Your task to perform on an android device: add a contact Image 0: 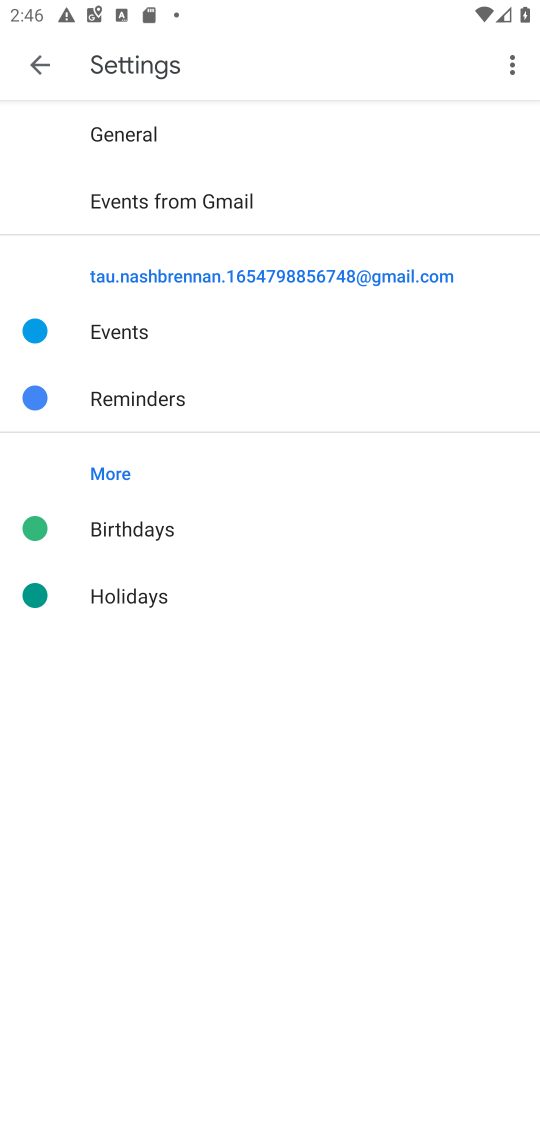
Step 0: press home button
Your task to perform on an android device: add a contact Image 1: 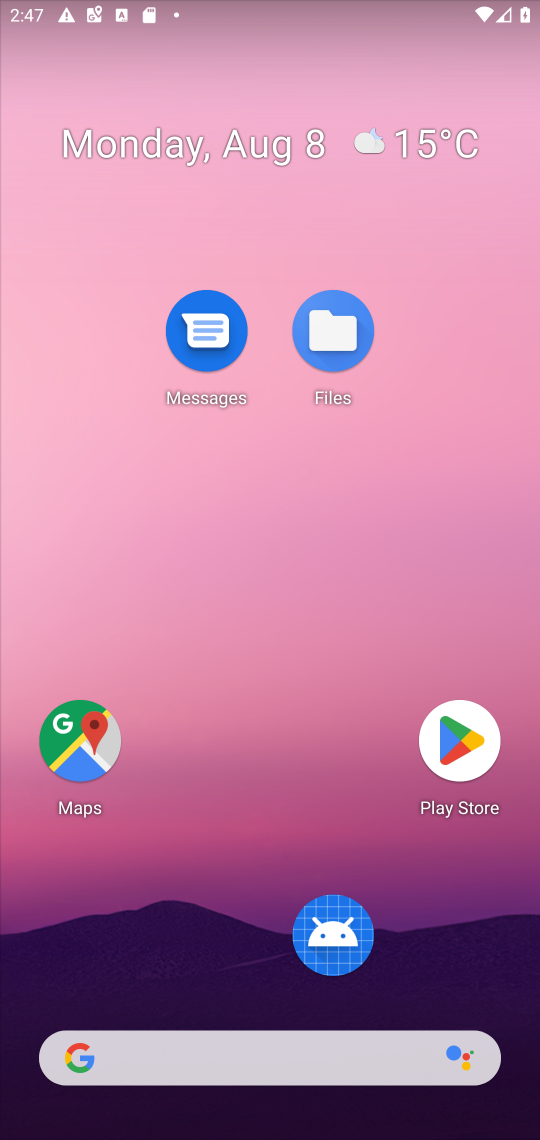
Step 1: drag from (301, 1056) to (540, 607)
Your task to perform on an android device: add a contact Image 2: 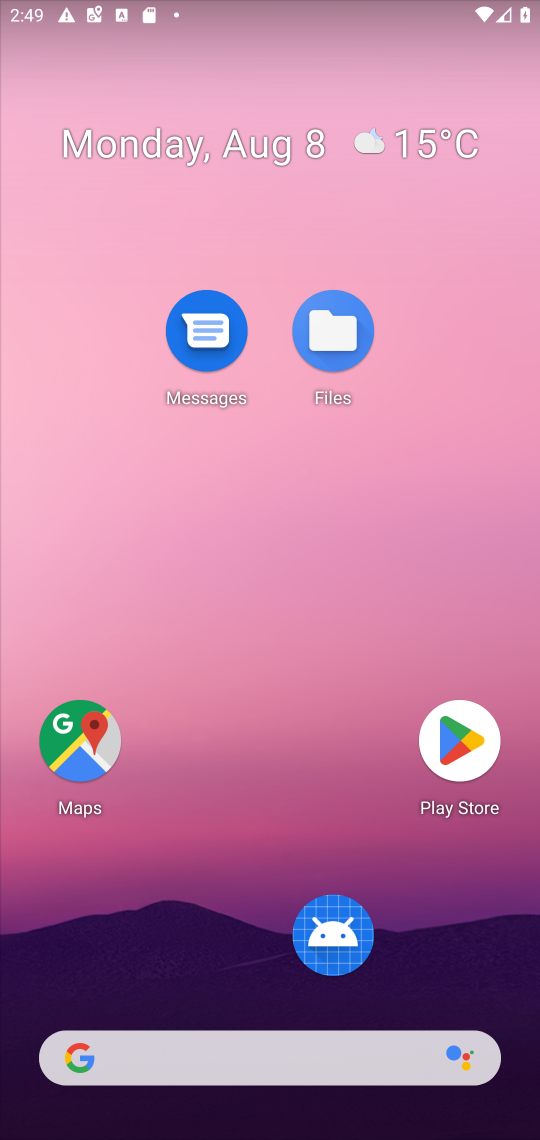
Step 2: drag from (293, 1082) to (477, 57)
Your task to perform on an android device: add a contact Image 3: 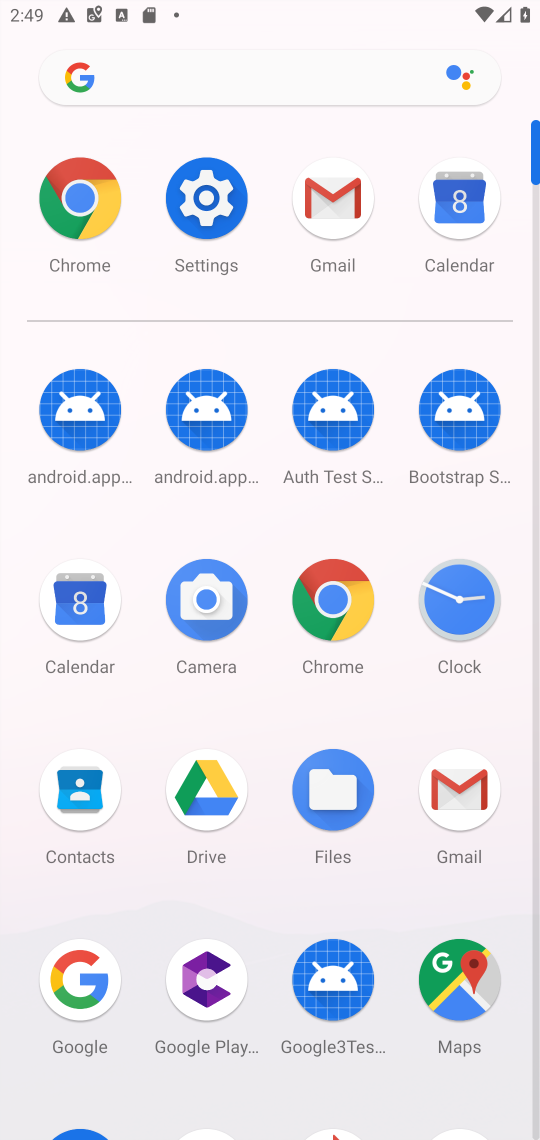
Step 3: click (82, 802)
Your task to perform on an android device: add a contact Image 4: 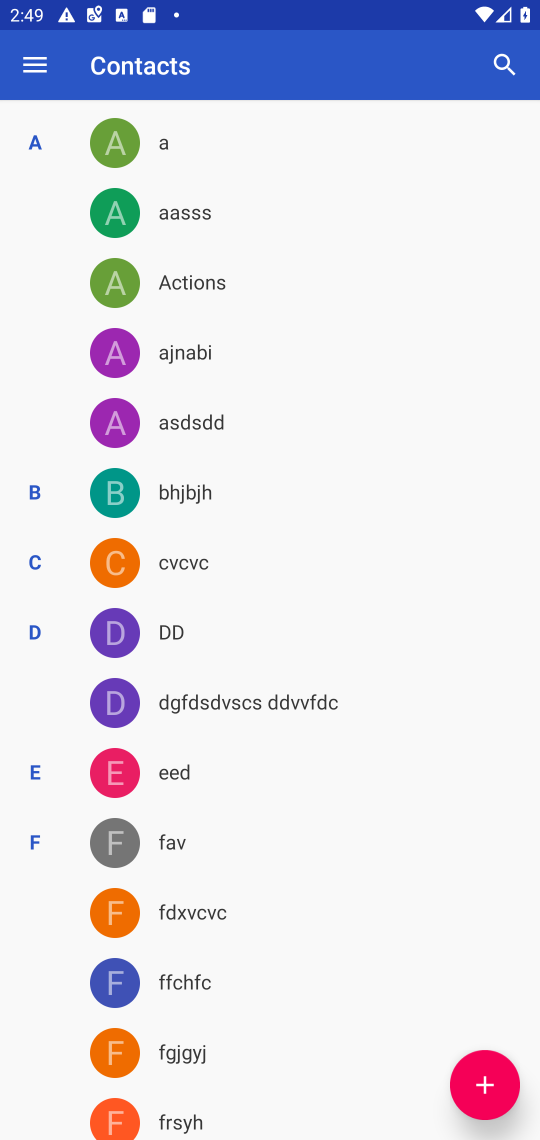
Step 4: click (493, 1054)
Your task to perform on an android device: add a contact Image 5: 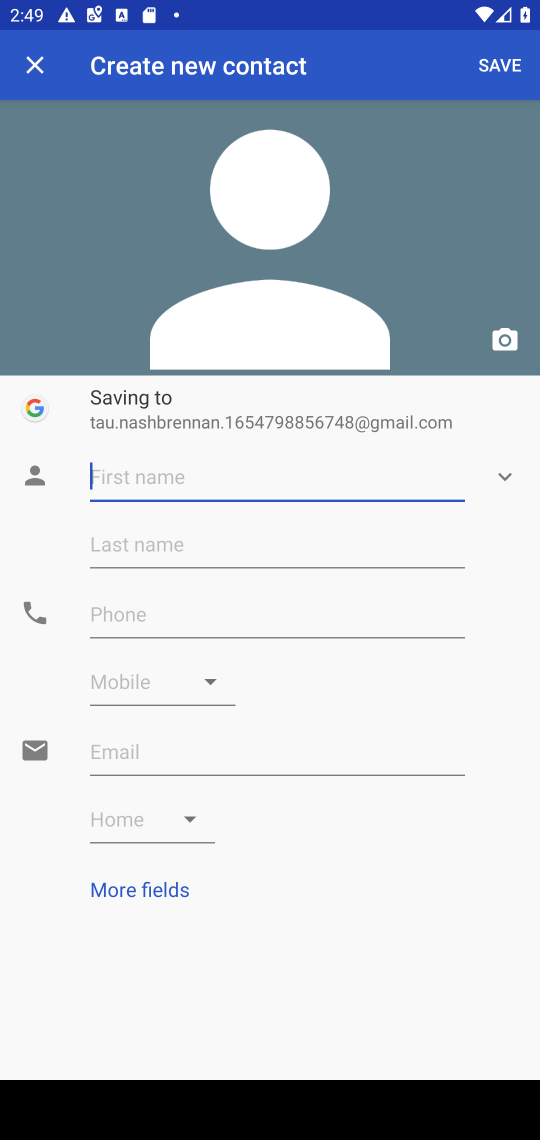
Step 5: type "dfsdgd"
Your task to perform on an android device: add a contact Image 6: 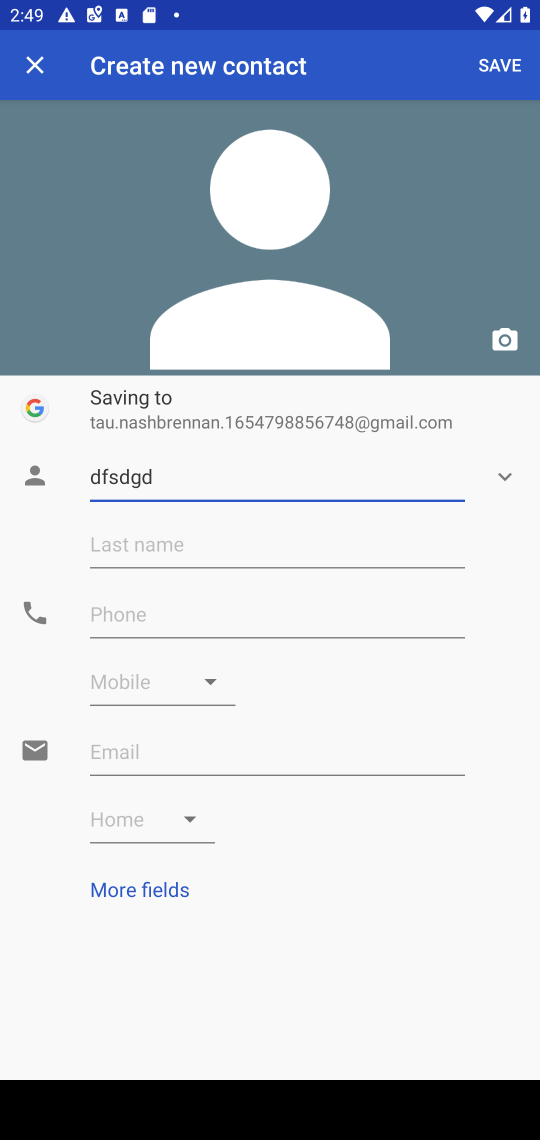
Step 6: click (166, 604)
Your task to perform on an android device: add a contact Image 7: 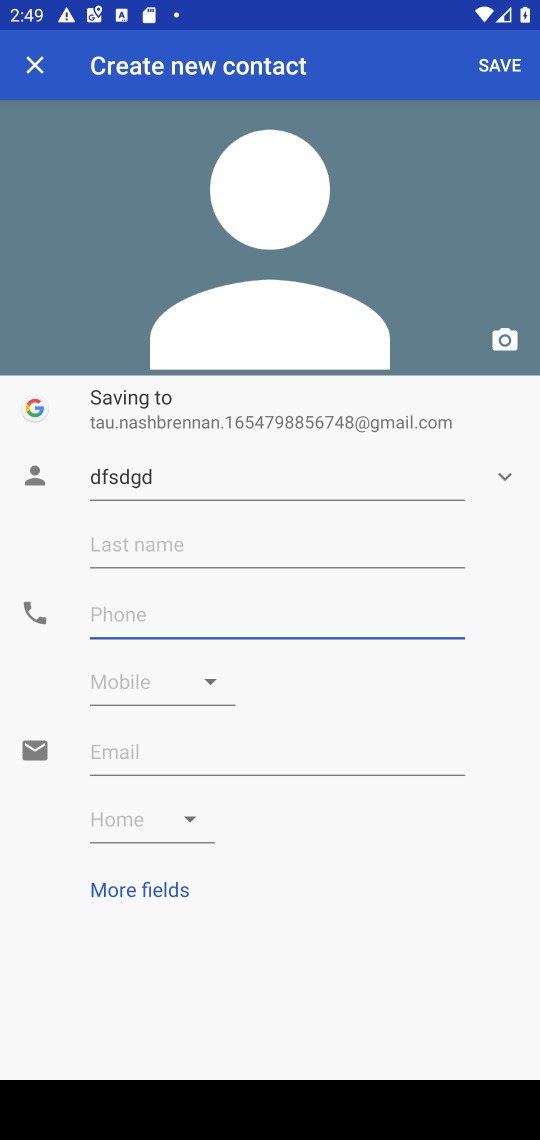
Step 7: type "65434556777"
Your task to perform on an android device: add a contact Image 8: 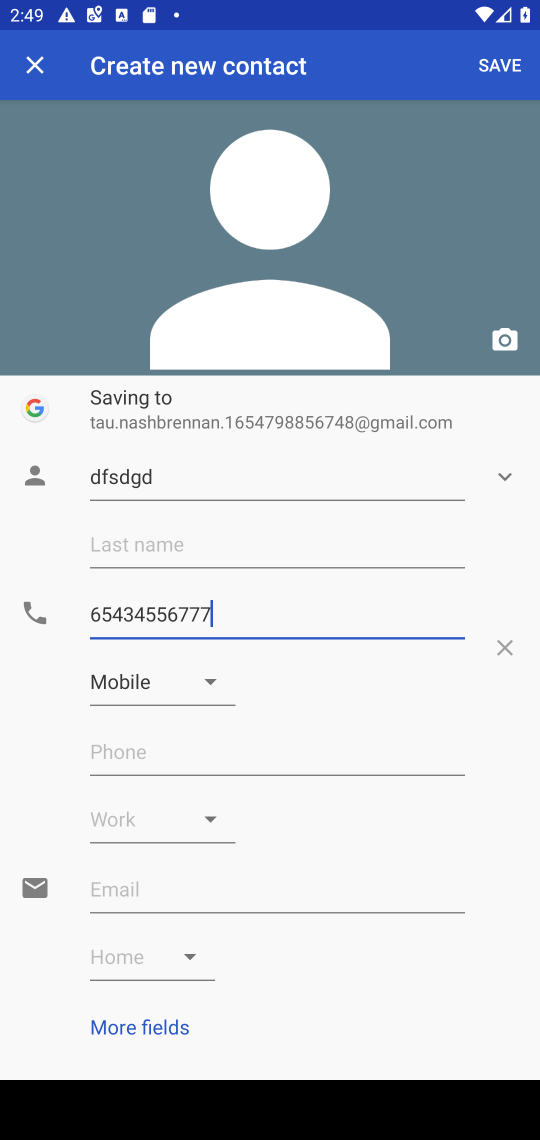
Step 8: click (489, 61)
Your task to perform on an android device: add a contact Image 9: 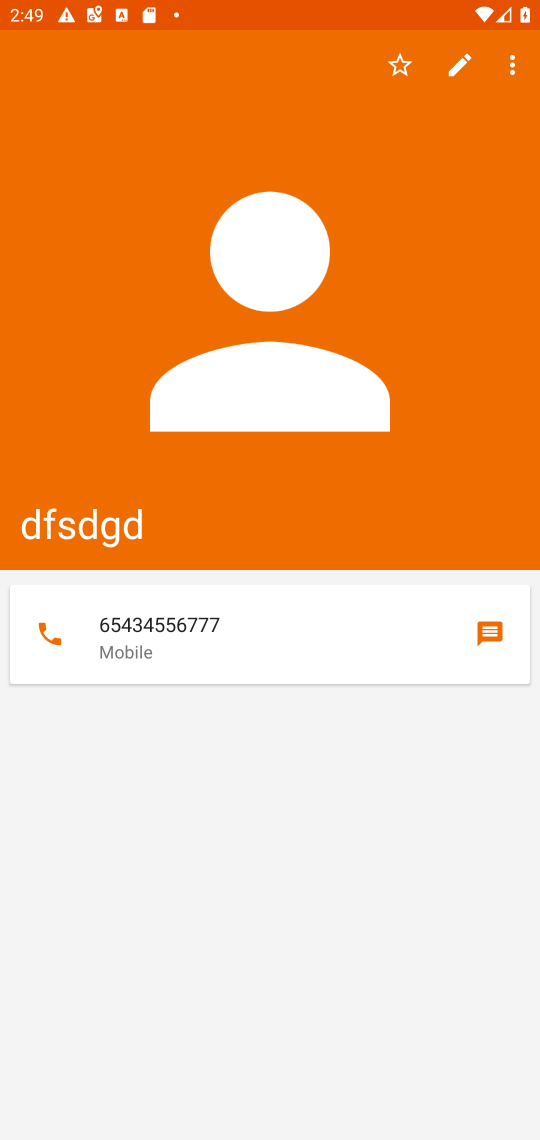
Step 9: task complete